Your task to perform on an android device: Search for seafood restaurants on Google Maps Image 0: 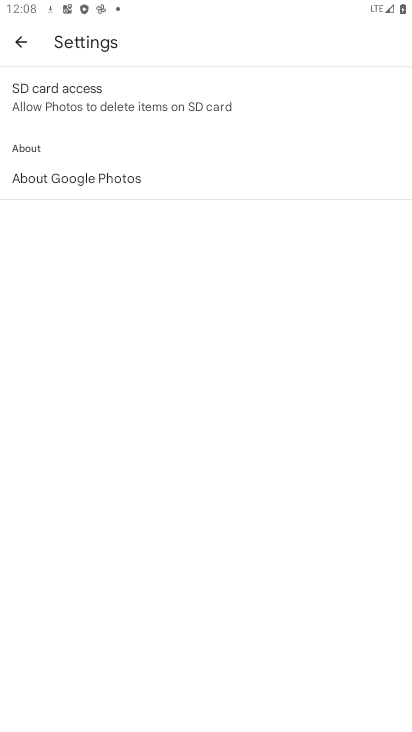
Step 0: press home button
Your task to perform on an android device: Search for seafood restaurants on Google Maps Image 1: 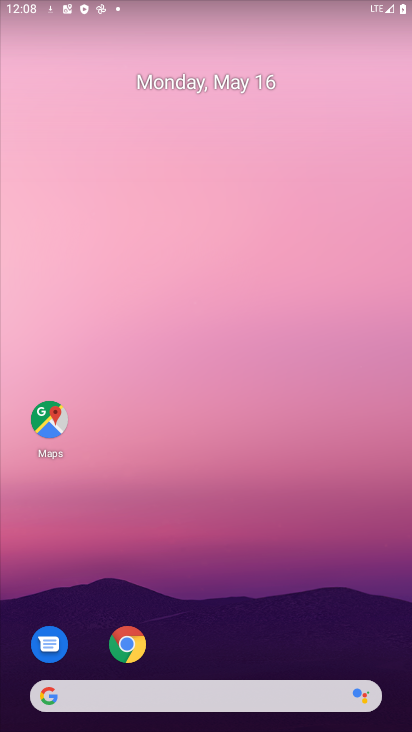
Step 1: drag from (234, 719) to (380, 258)
Your task to perform on an android device: Search for seafood restaurants on Google Maps Image 2: 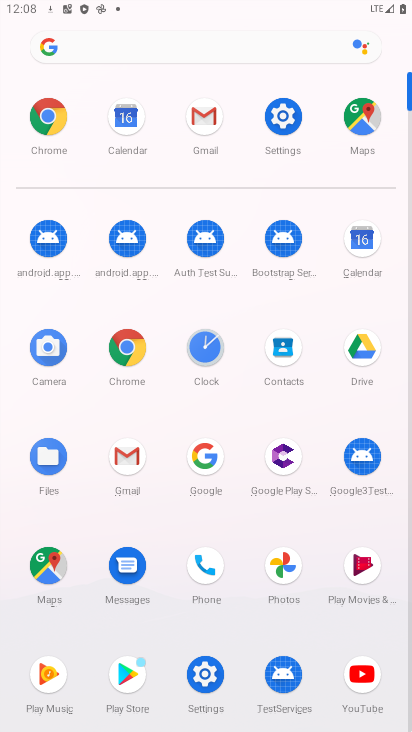
Step 2: click (365, 127)
Your task to perform on an android device: Search for seafood restaurants on Google Maps Image 3: 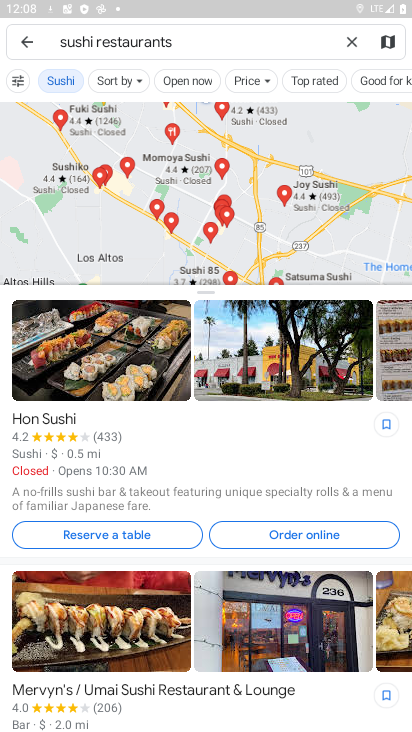
Step 3: click (163, 246)
Your task to perform on an android device: Search for seafood restaurants on Google Maps Image 4: 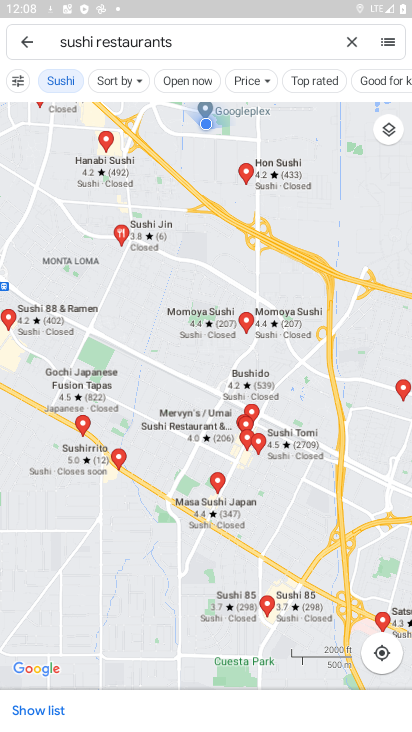
Step 4: task complete